Your task to perform on an android device: Show me popular videos on Youtube Image 0: 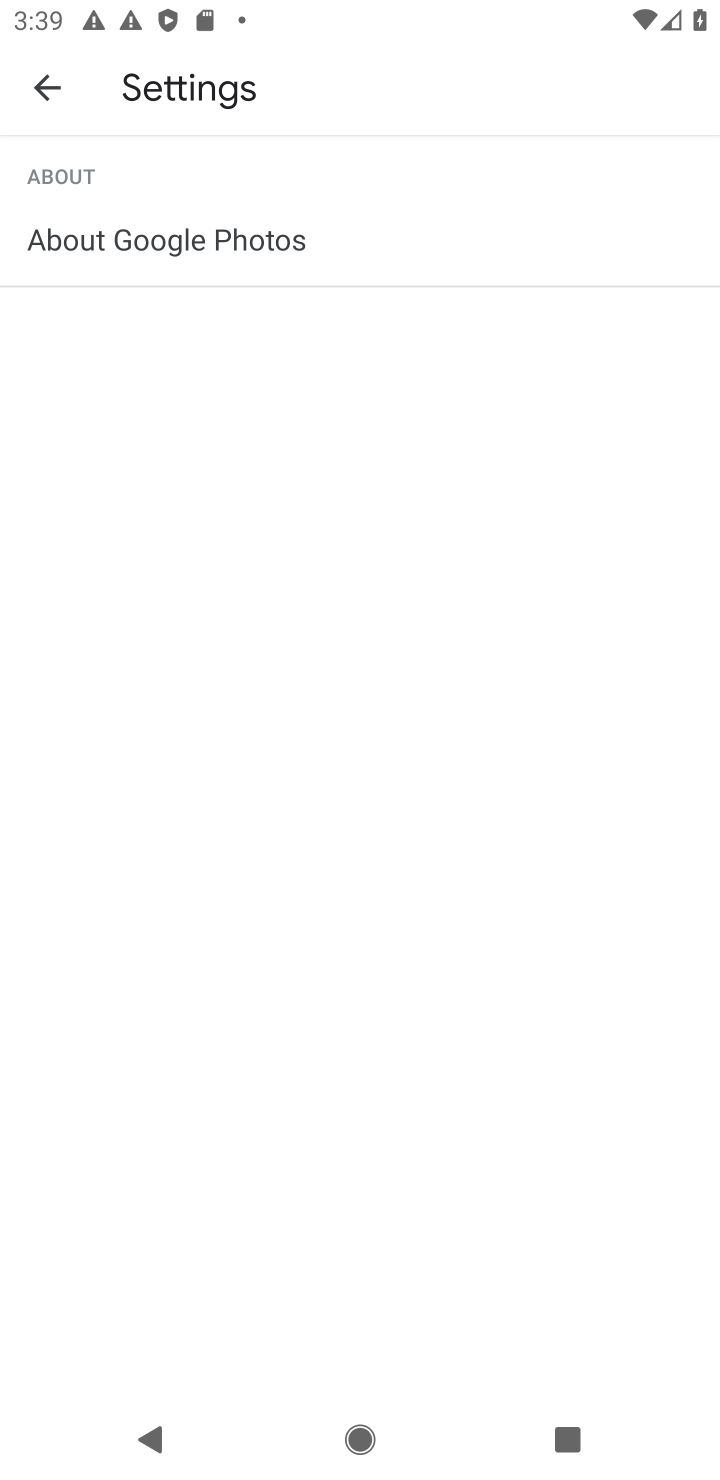
Step 0: press home button
Your task to perform on an android device: Show me popular videos on Youtube Image 1: 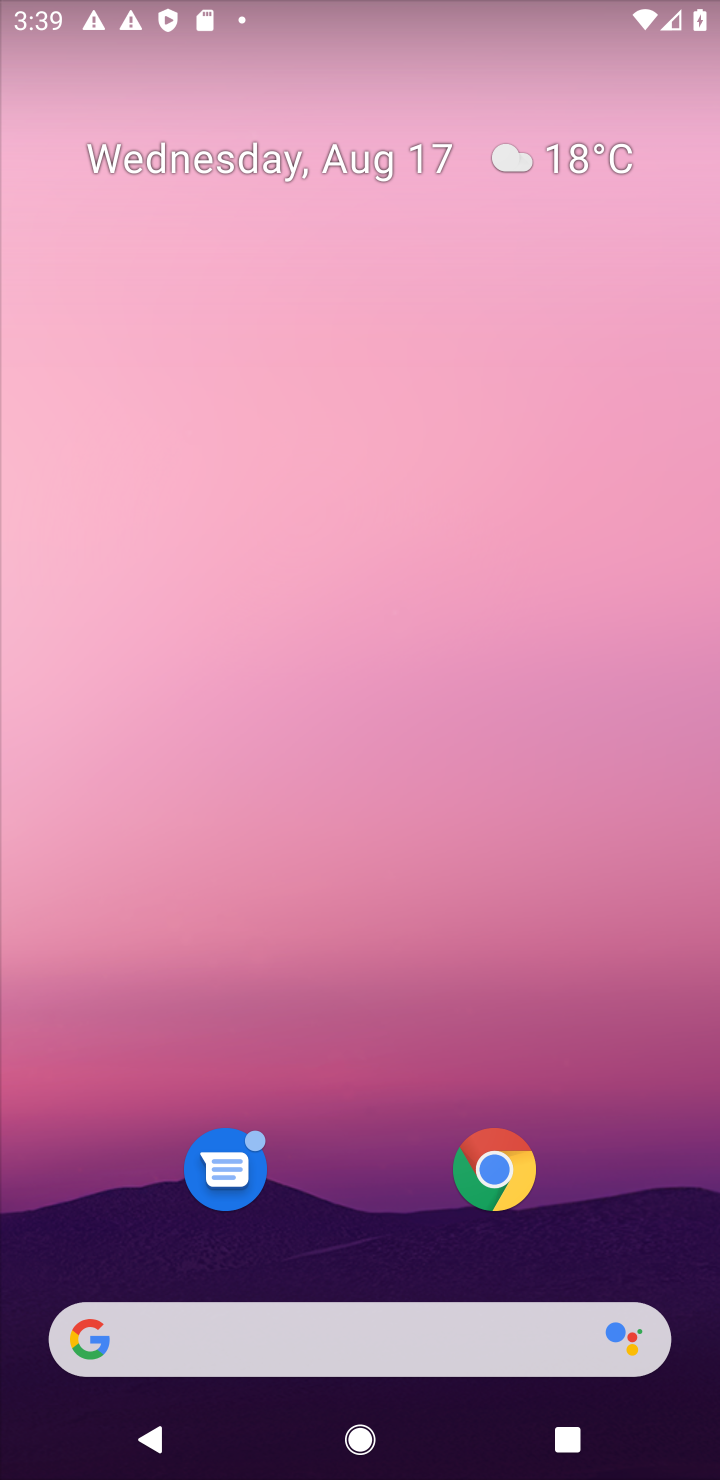
Step 1: drag from (363, 1174) to (320, 45)
Your task to perform on an android device: Show me popular videos on Youtube Image 2: 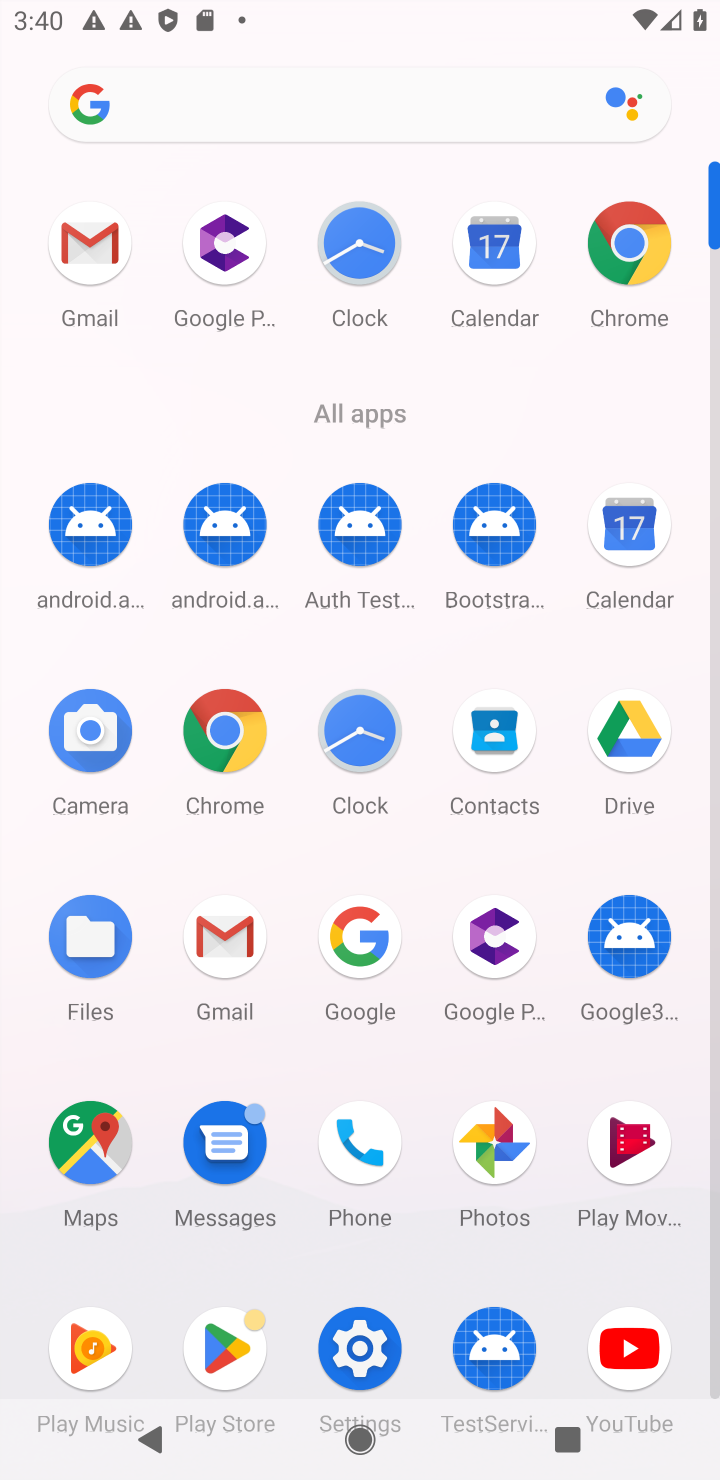
Step 2: click (639, 1347)
Your task to perform on an android device: Show me popular videos on Youtube Image 3: 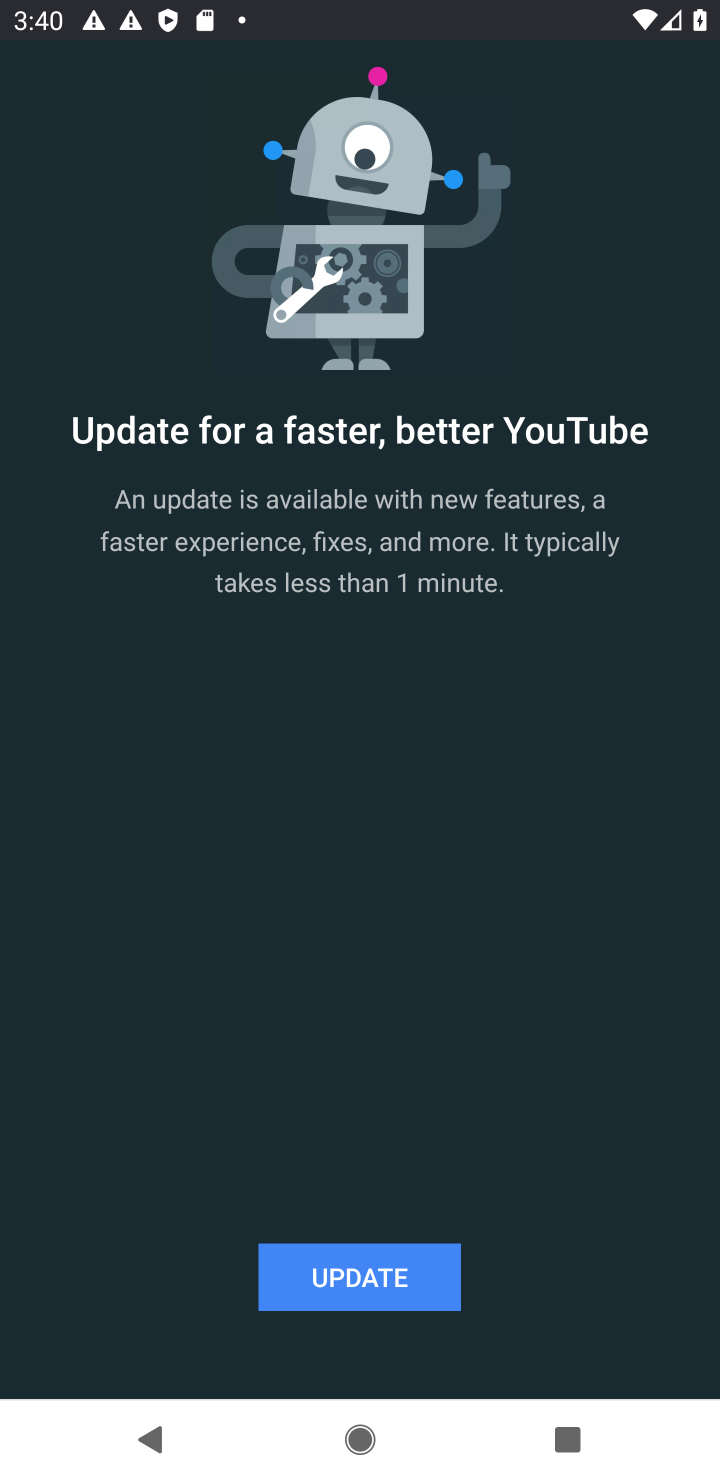
Step 3: click (362, 1291)
Your task to perform on an android device: Show me popular videos on Youtube Image 4: 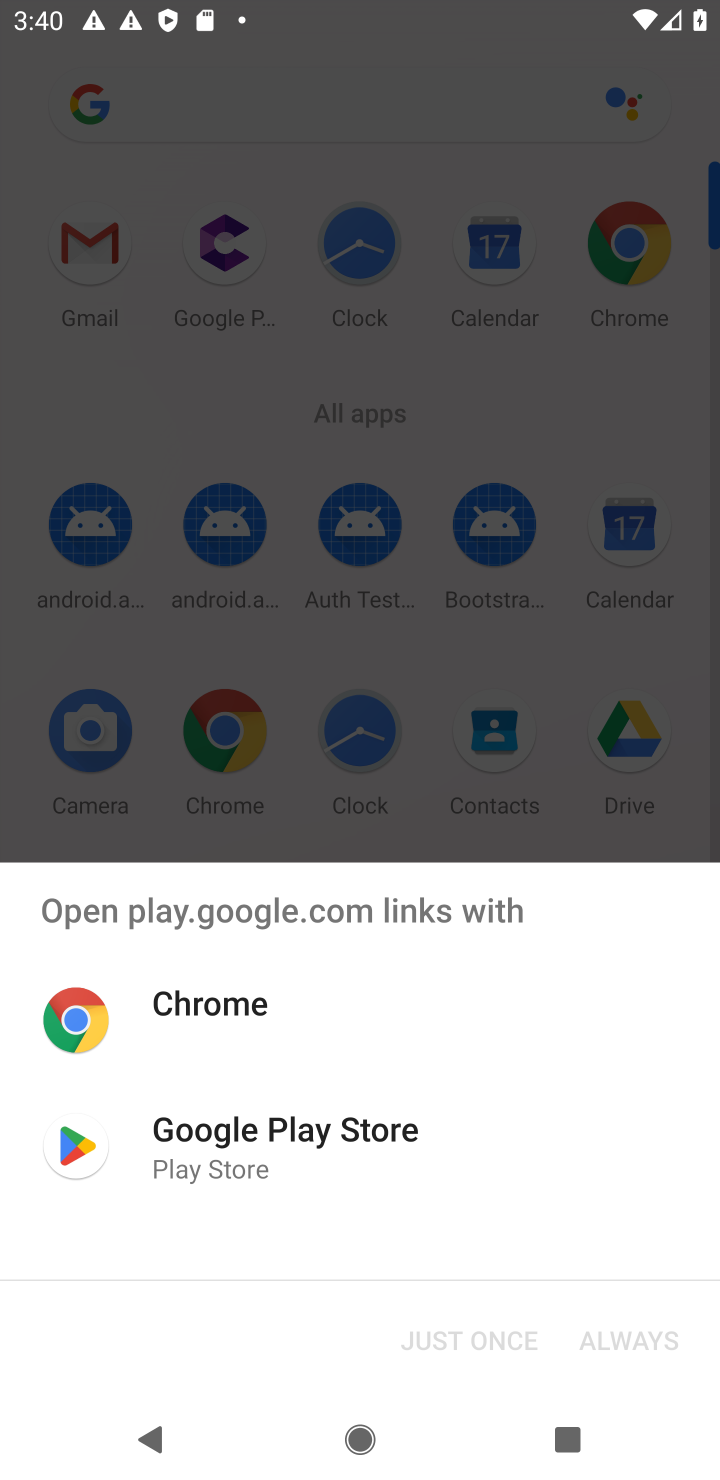
Step 4: click (305, 1148)
Your task to perform on an android device: Show me popular videos on Youtube Image 5: 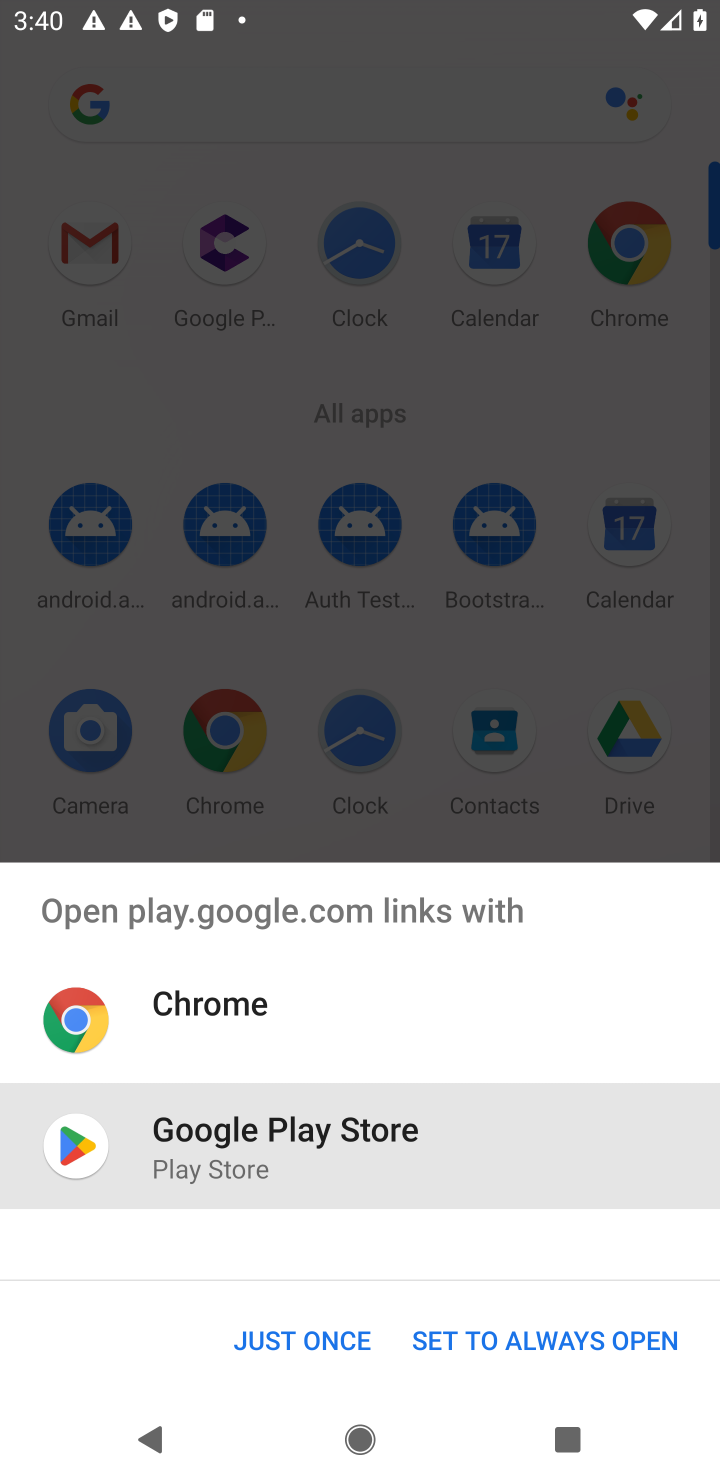
Step 5: click (318, 1343)
Your task to perform on an android device: Show me popular videos on Youtube Image 6: 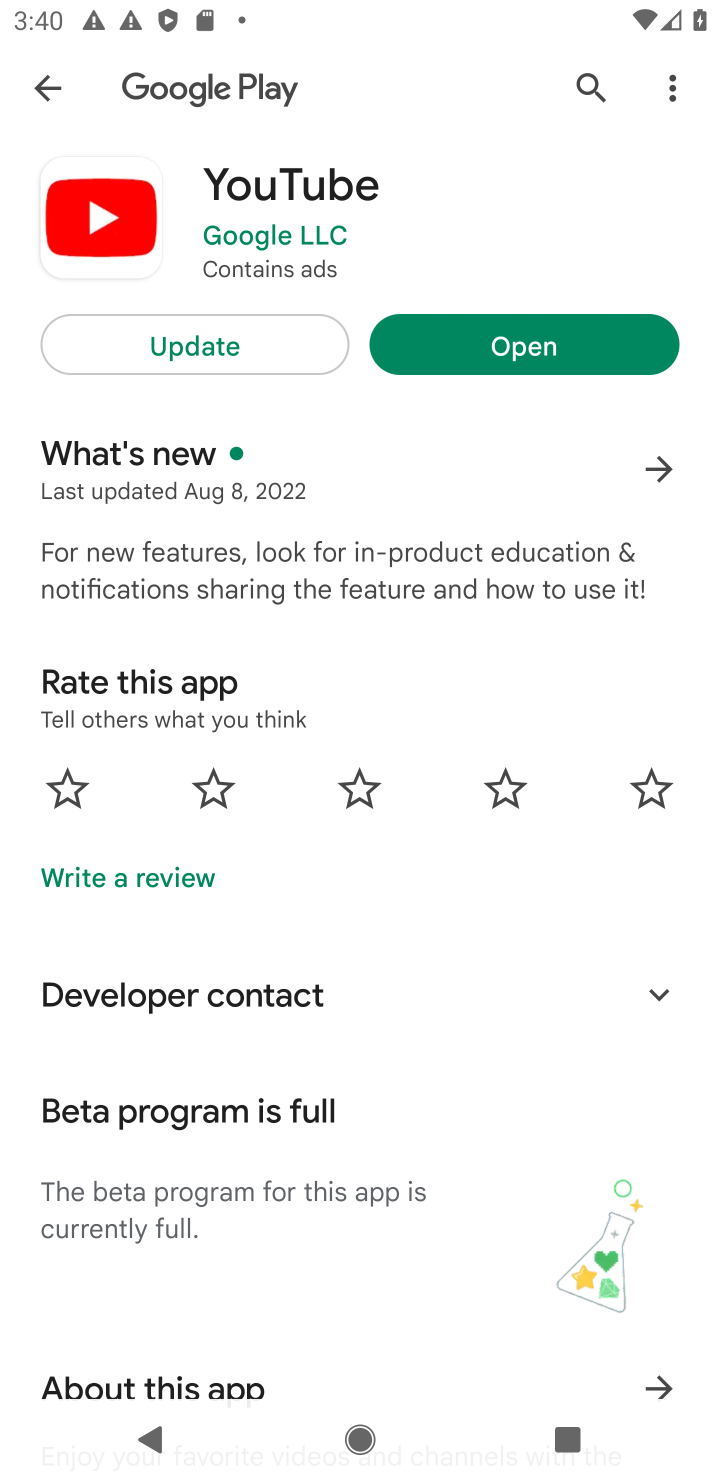
Step 6: click (251, 344)
Your task to perform on an android device: Show me popular videos on Youtube Image 7: 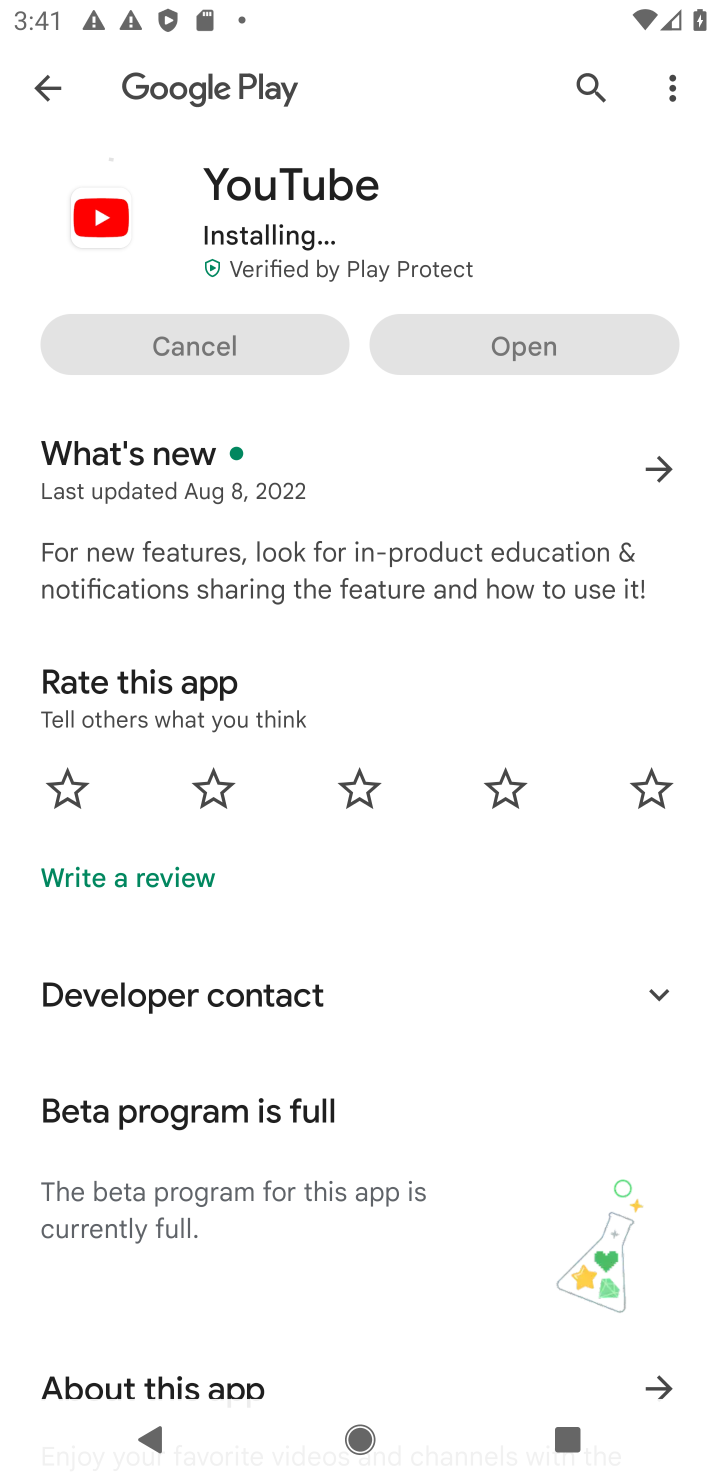
Step 7: click (579, 347)
Your task to perform on an android device: Show me popular videos on Youtube Image 8: 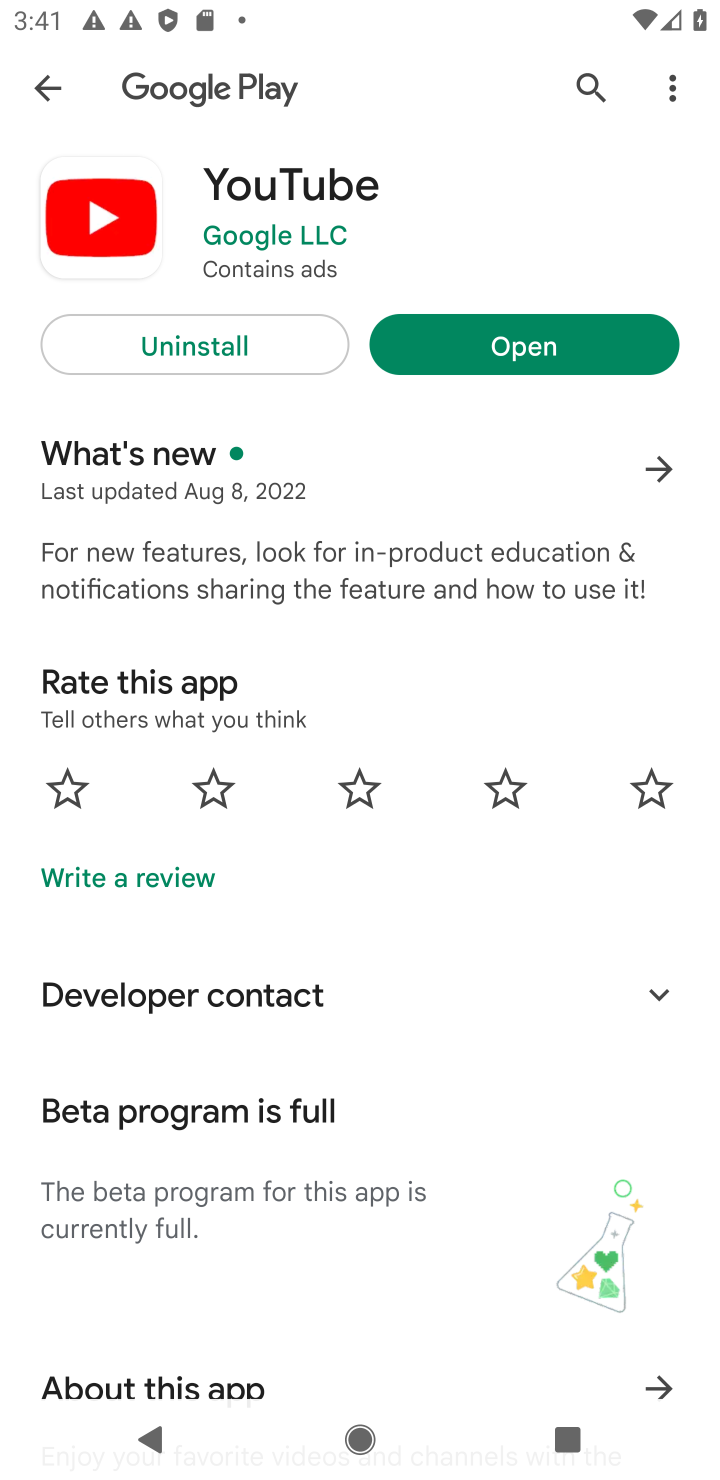
Step 8: click (552, 334)
Your task to perform on an android device: Show me popular videos on Youtube Image 9: 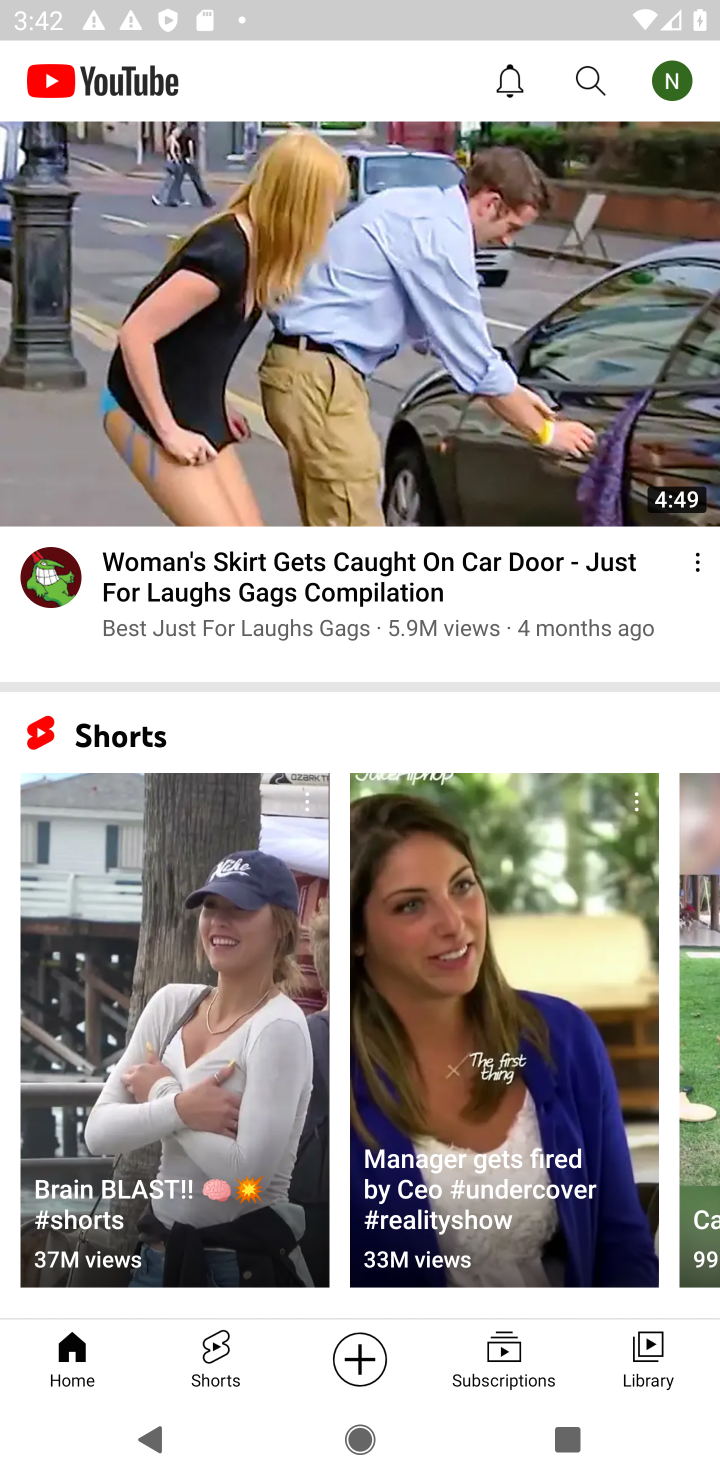
Step 9: click (578, 79)
Your task to perform on an android device: Show me popular videos on Youtube Image 10: 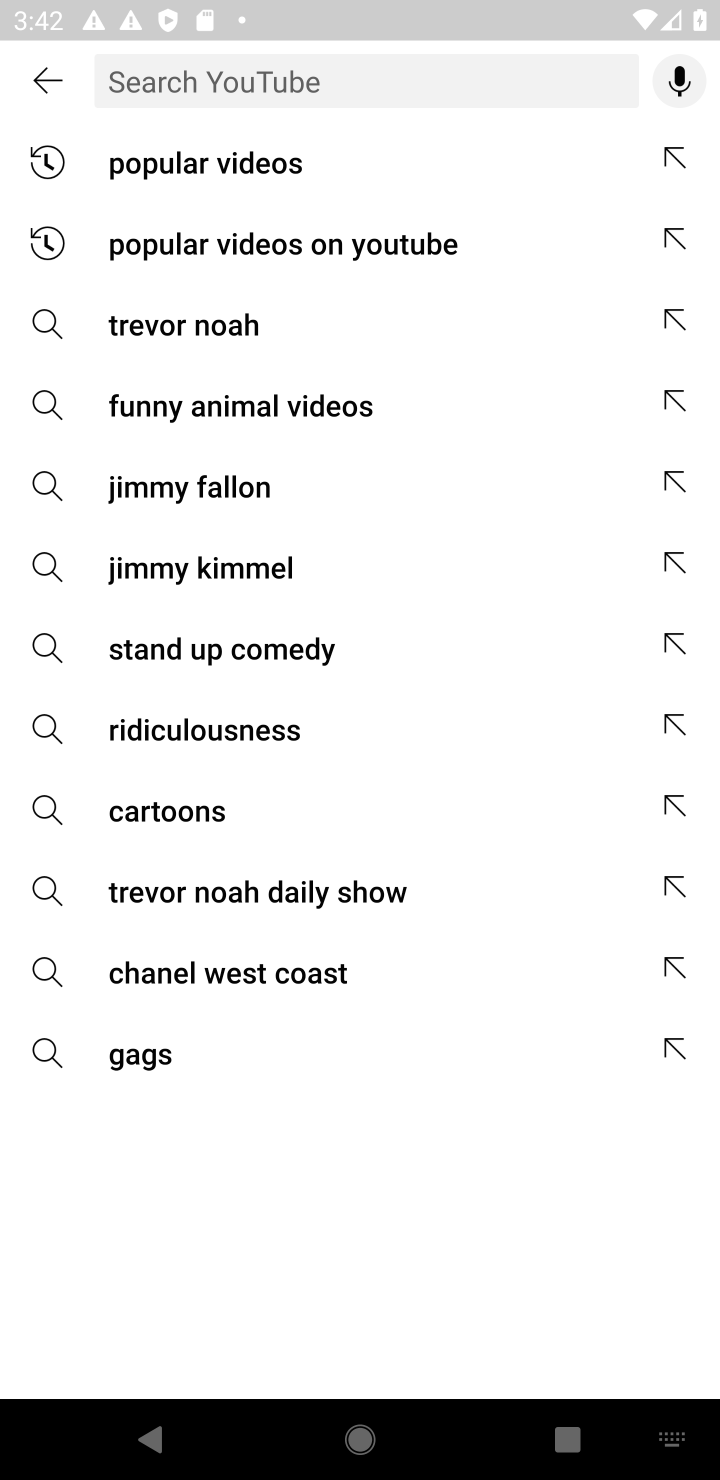
Step 10: type " popular videos"
Your task to perform on an android device: Show me popular videos on Youtube Image 11: 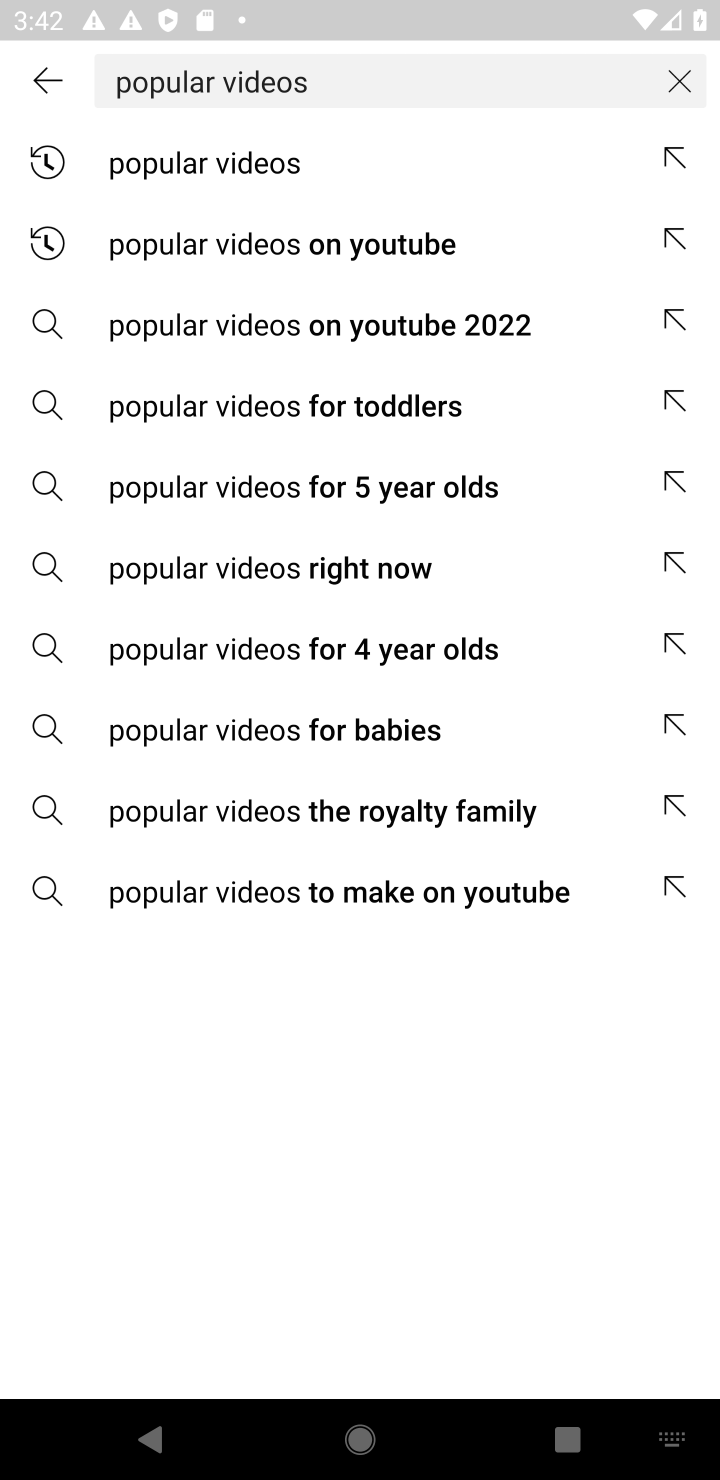
Step 11: click (226, 159)
Your task to perform on an android device: Show me popular videos on Youtube Image 12: 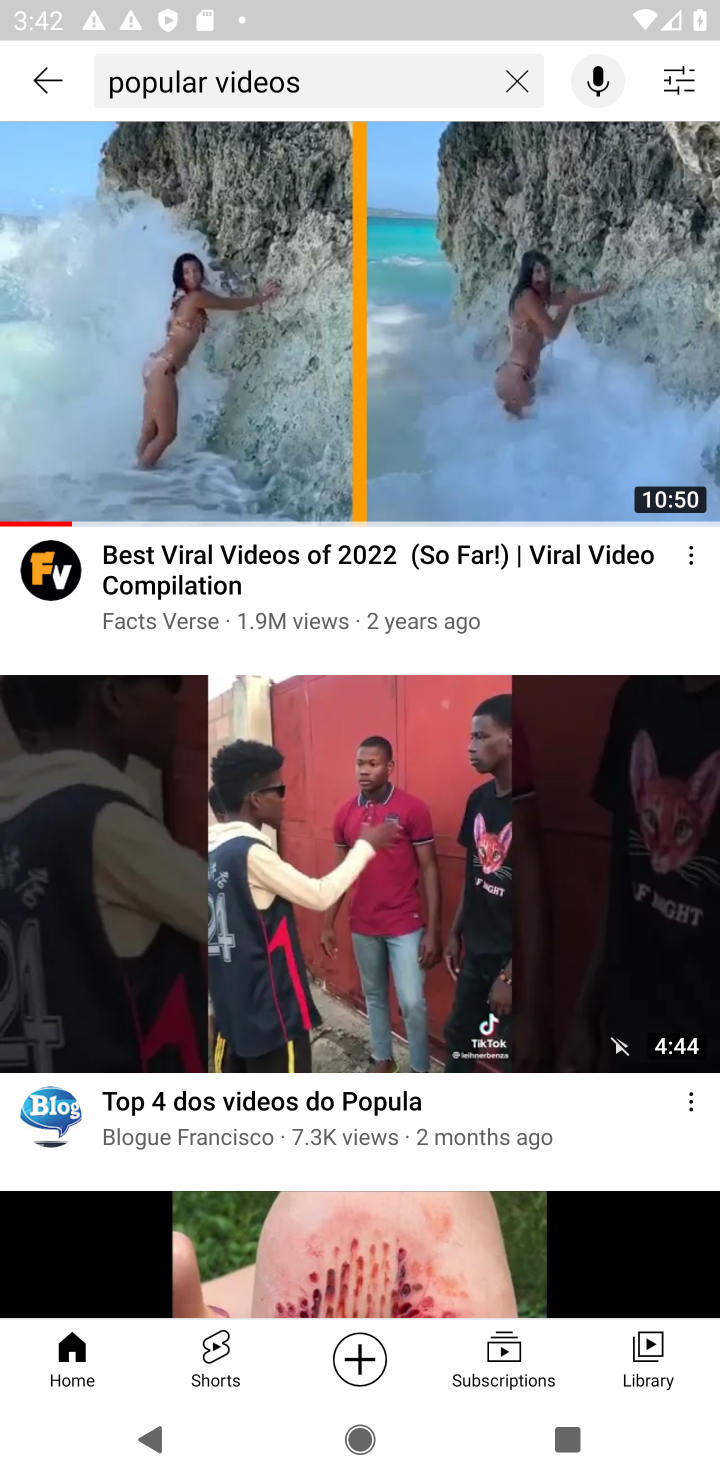
Step 12: task complete